Your task to perform on an android device: see sites visited before in the chrome app Image 0: 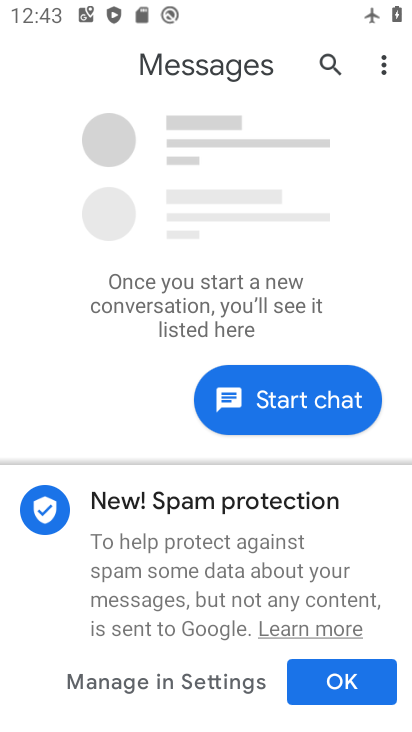
Step 0: press back button
Your task to perform on an android device: see sites visited before in the chrome app Image 1: 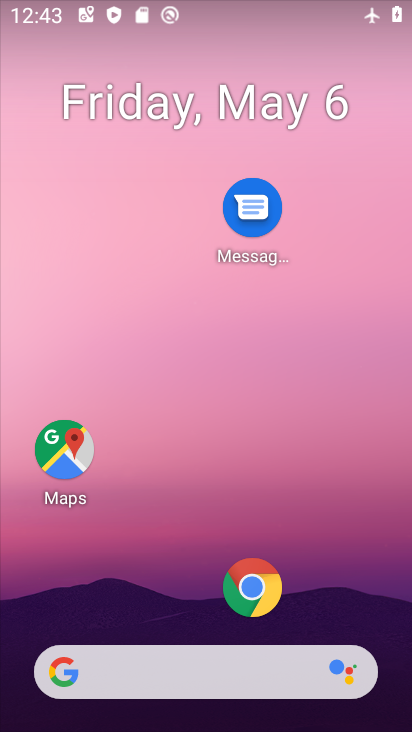
Step 1: click (264, 577)
Your task to perform on an android device: see sites visited before in the chrome app Image 2: 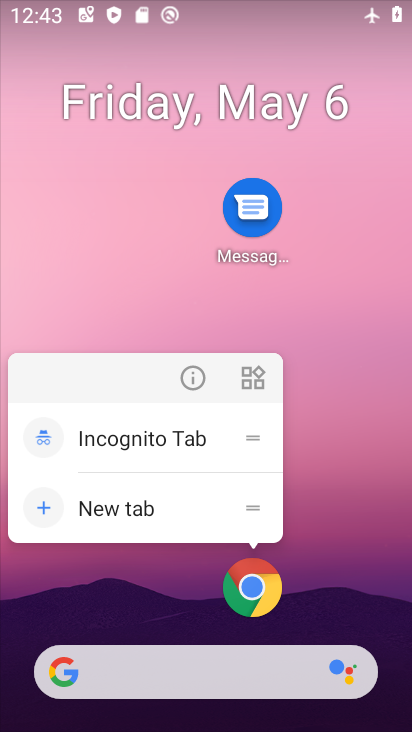
Step 2: click (259, 579)
Your task to perform on an android device: see sites visited before in the chrome app Image 3: 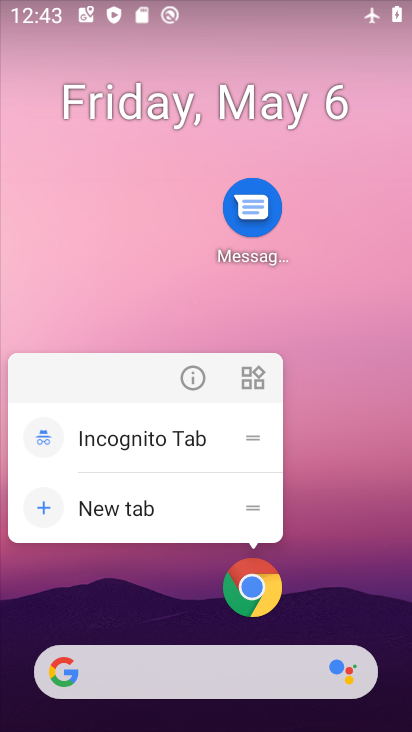
Step 3: click (257, 586)
Your task to perform on an android device: see sites visited before in the chrome app Image 4: 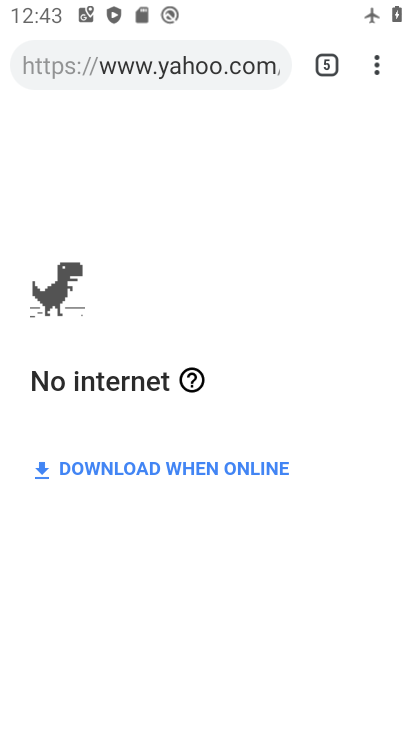
Step 4: task complete